Your task to perform on an android device: Search for "razer blackwidow" on bestbuy.com, select the first entry, and add it to the cart. Image 0: 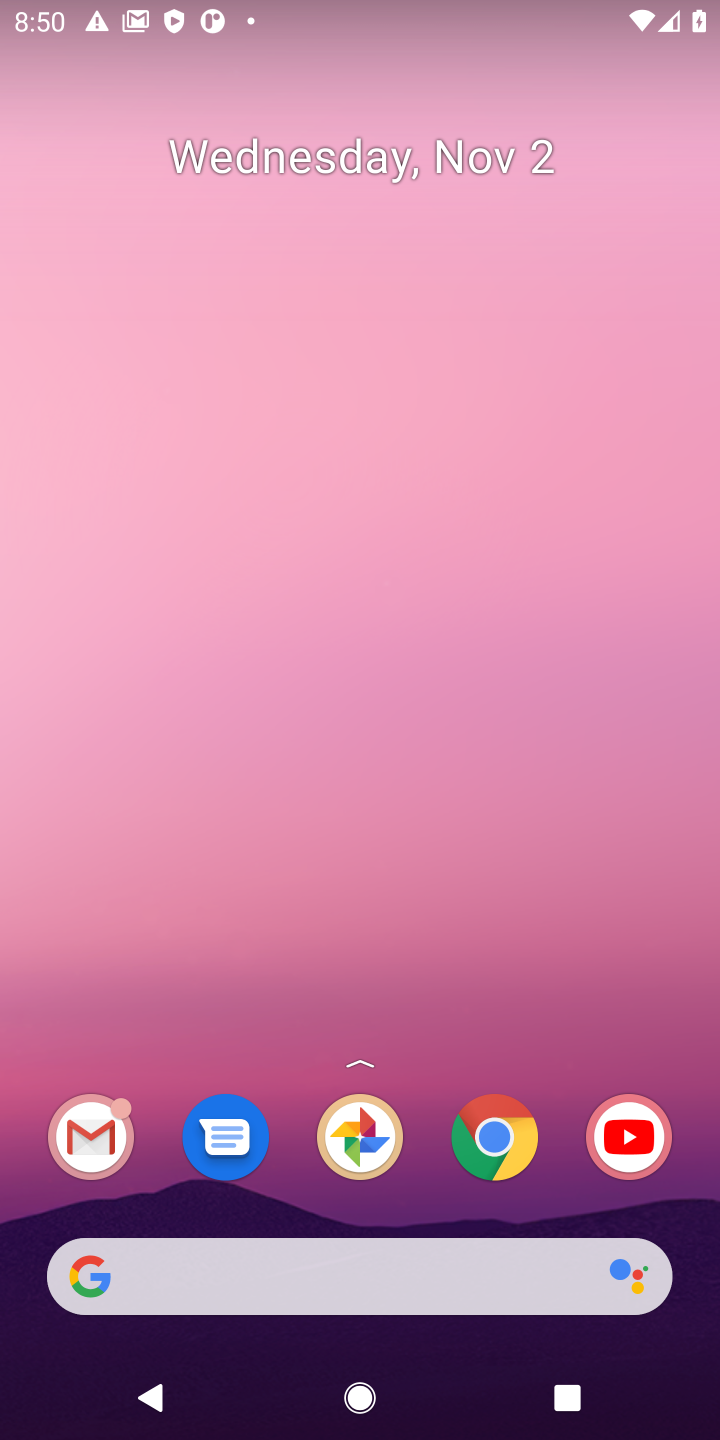
Step 0: click (499, 1140)
Your task to perform on an android device: Search for "razer blackwidow" on bestbuy.com, select the first entry, and add it to the cart. Image 1: 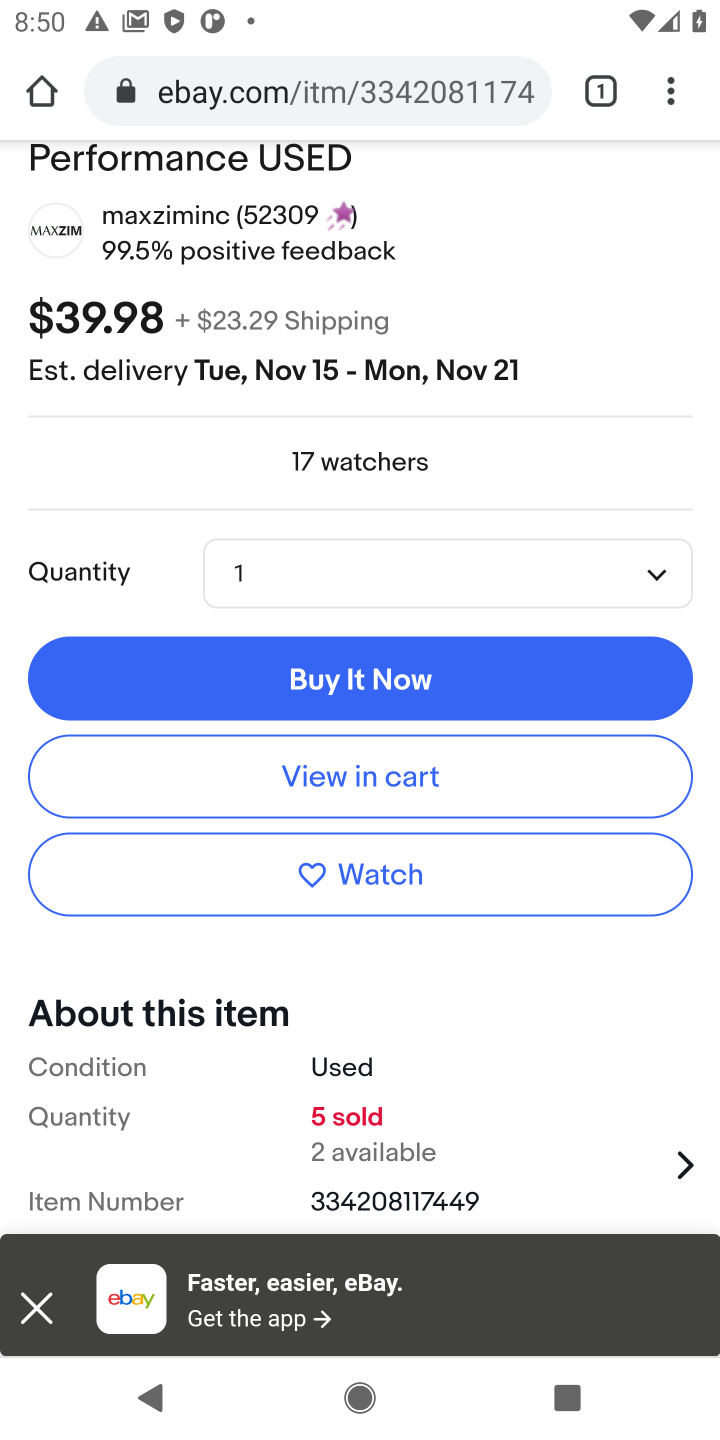
Step 1: click (373, 60)
Your task to perform on an android device: Search for "razer blackwidow" on bestbuy.com, select the first entry, and add it to the cart. Image 2: 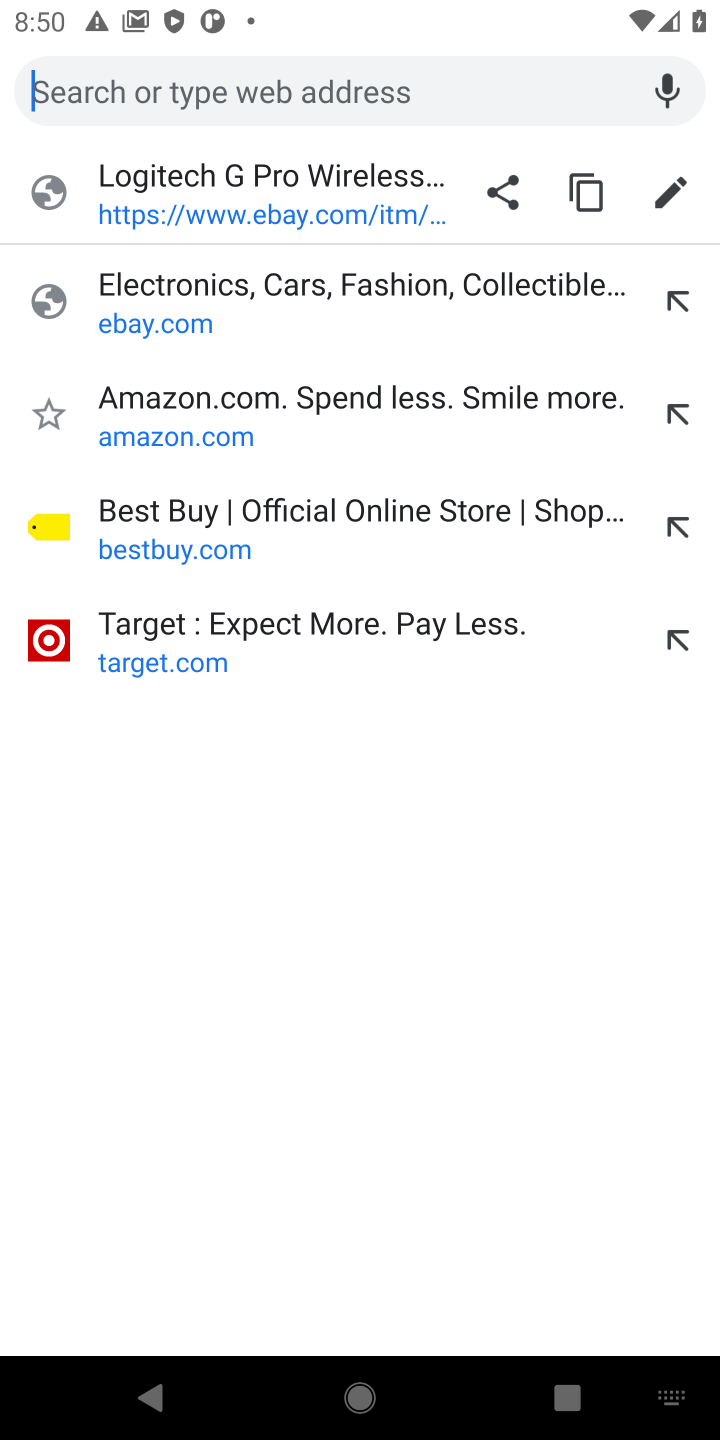
Step 2: type "bestbuy.com"
Your task to perform on an android device: Search for "razer blackwidow" on bestbuy.com, select the first entry, and add it to the cart. Image 3: 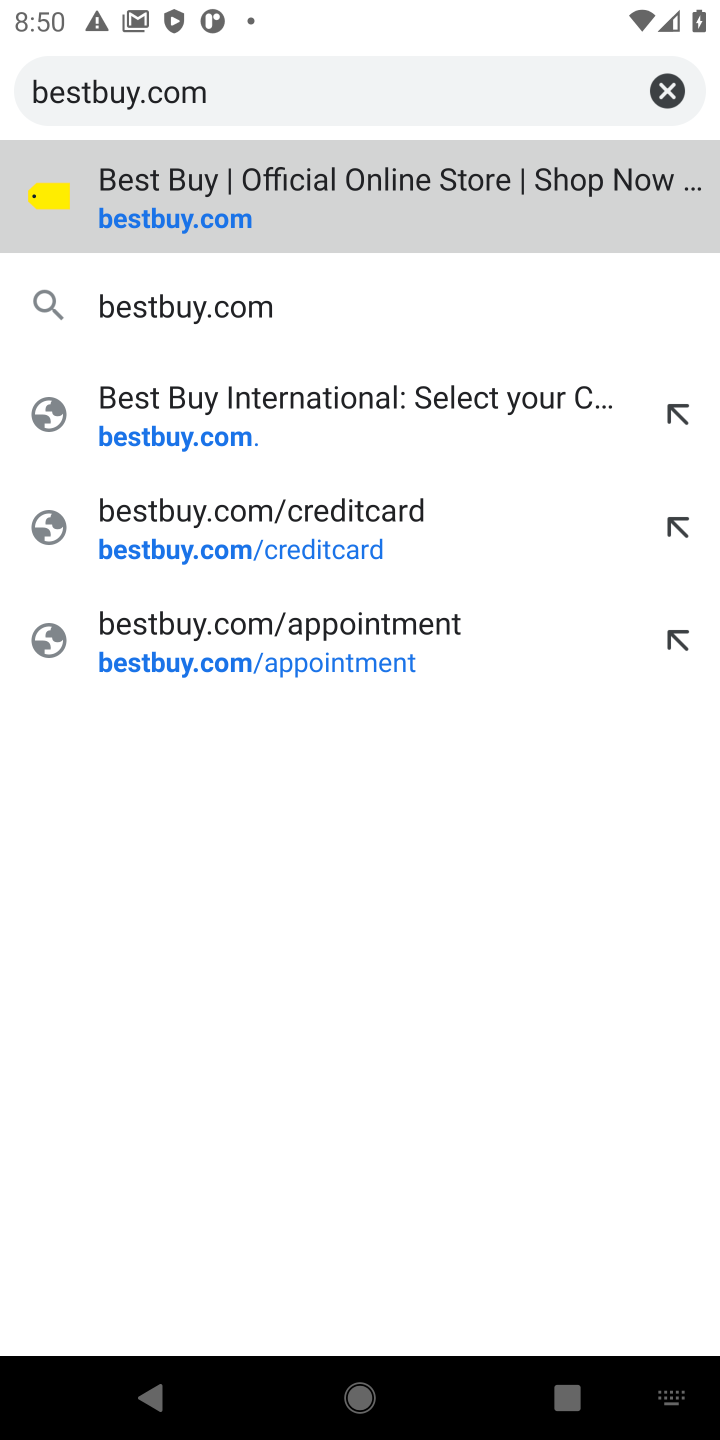
Step 3: click (157, 179)
Your task to perform on an android device: Search for "razer blackwidow" on bestbuy.com, select the first entry, and add it to the cart. Image 4: 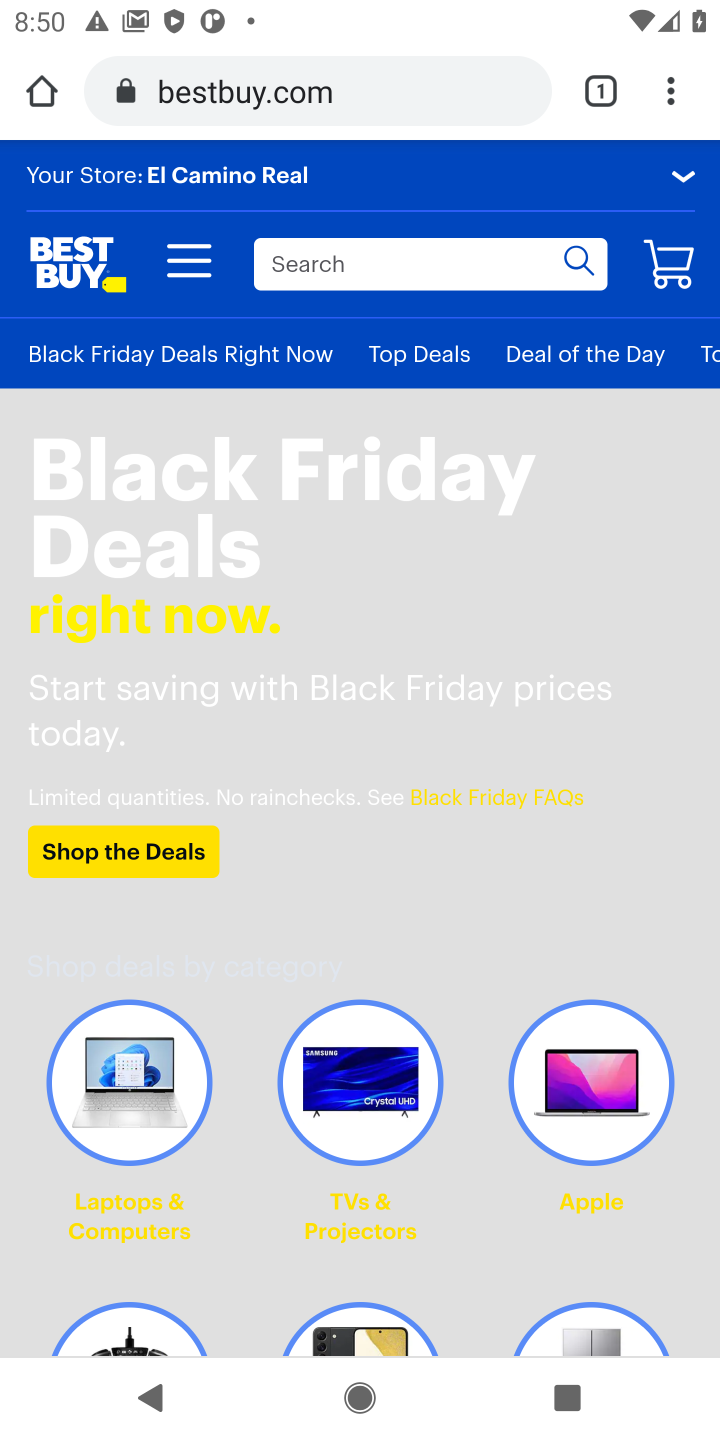
Step 4: click (372, 264)
Your task to perform on an android device: Search for "razer blackwidow" on bestbuy.com, select the first entry, and add it to the cart. Image 5: 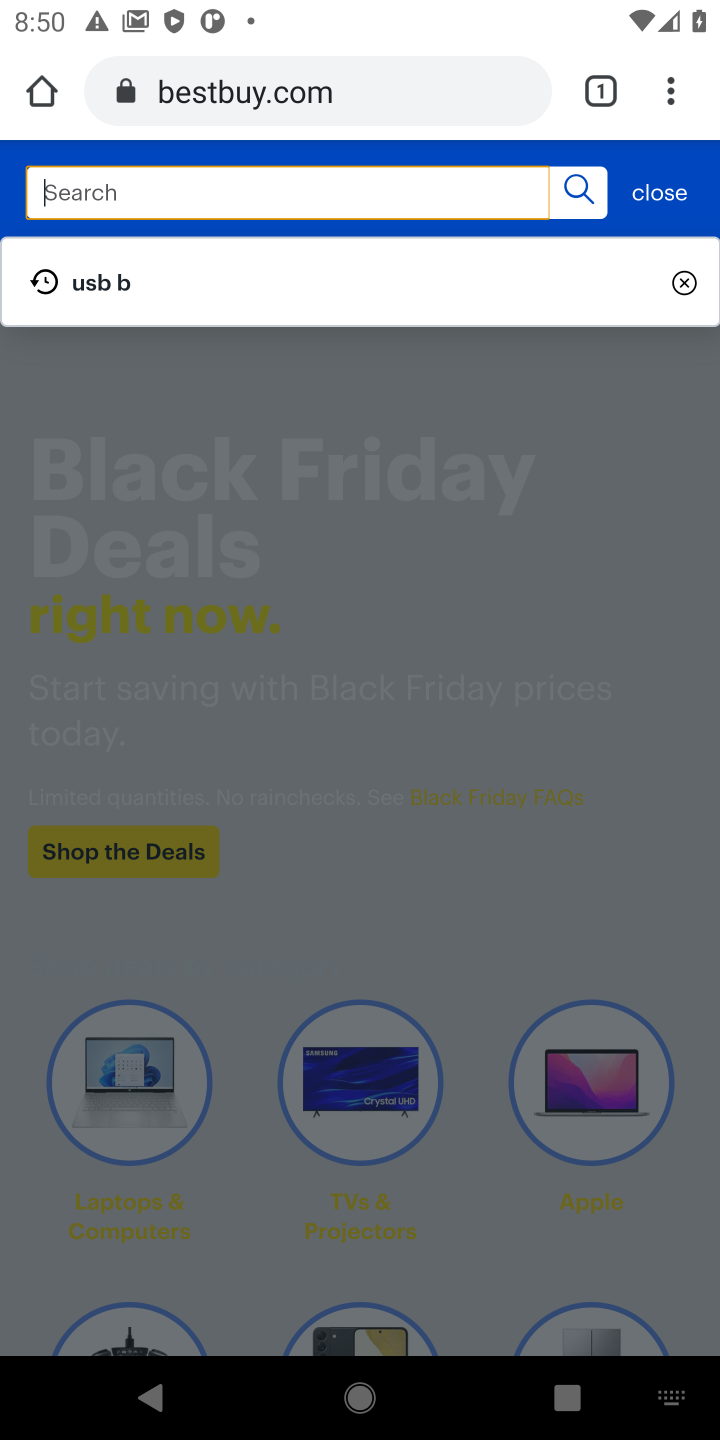
Step 5: type "razer blackwidow"
Your task to perform on an android device: Search for "razer blackwidow" on bestbuy.com, select the first entry, and add it to the cart. Image 6: 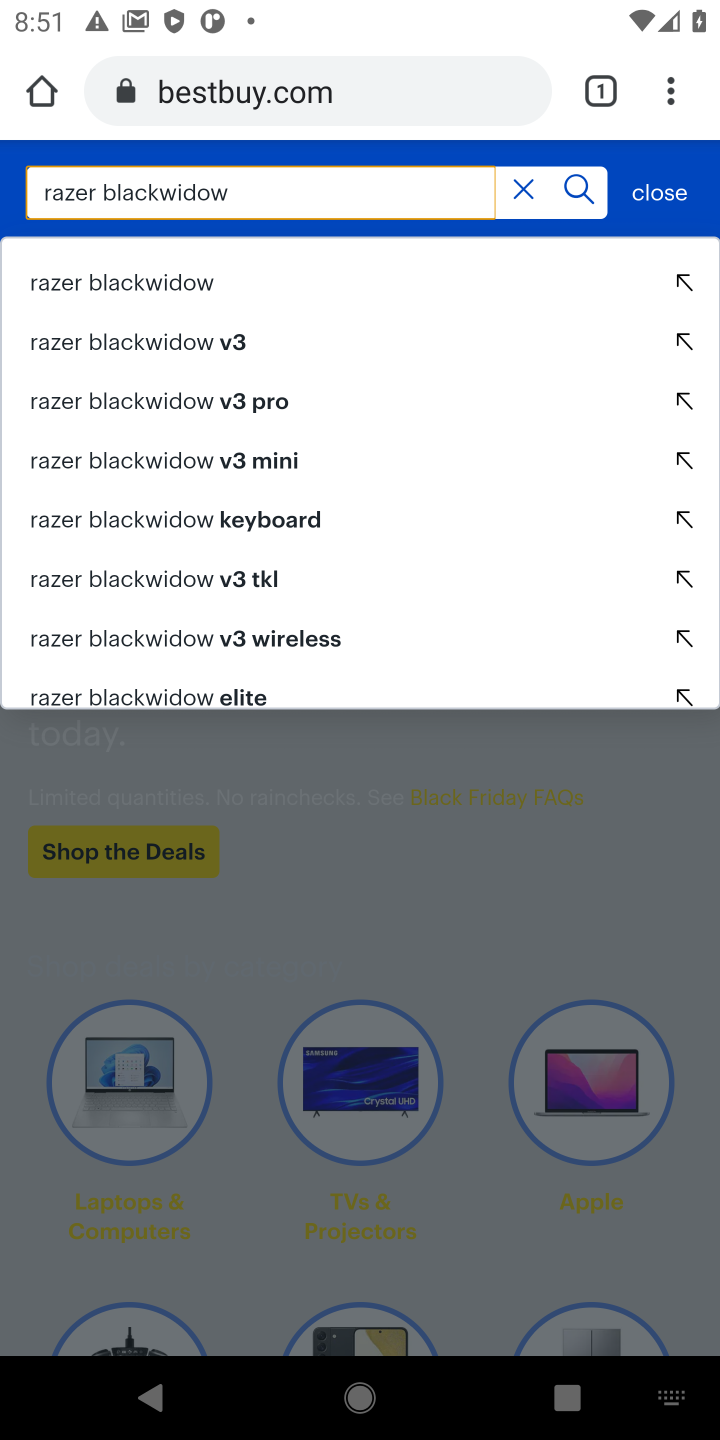
Step 6: click (165, 280)
Your task to perform on an android device: Search for "razer blackwidow" on bestbuy.com, select the first entry, and add it to the cart. Image 7: 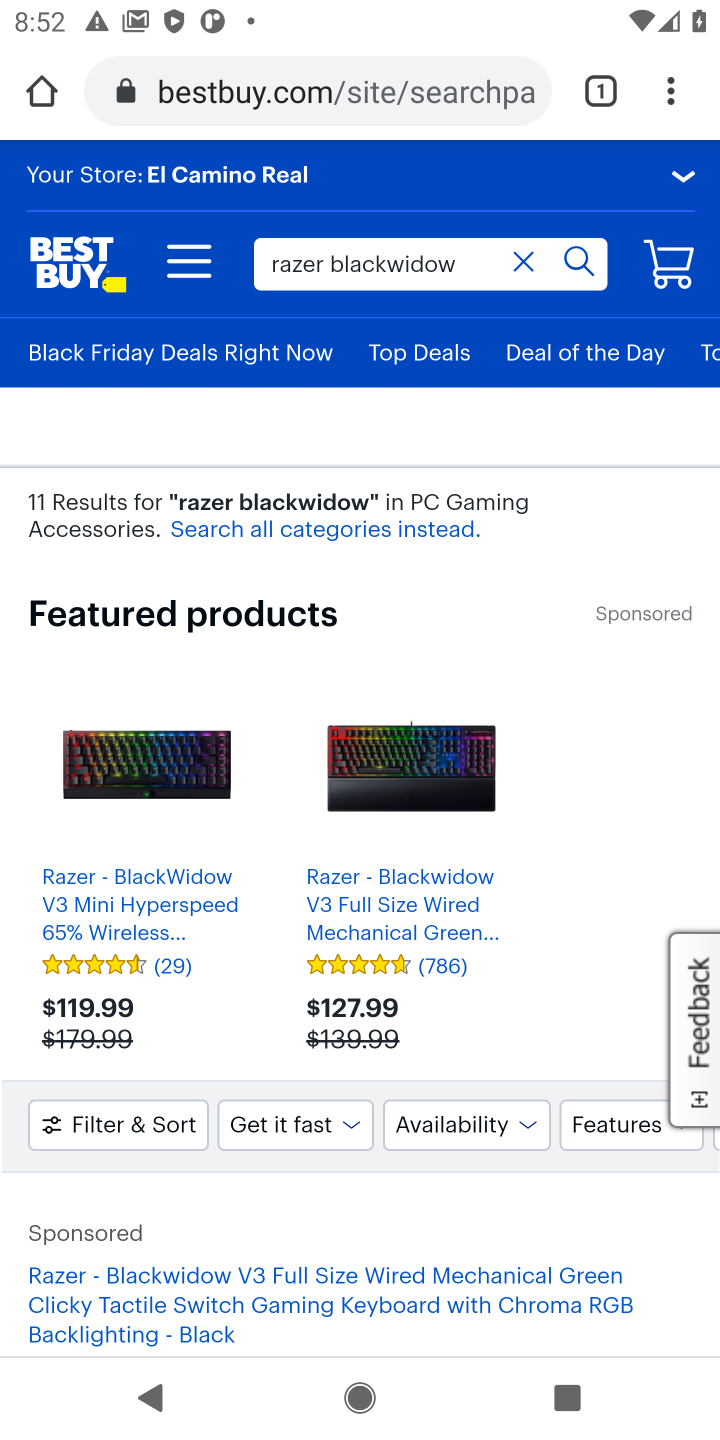
Step 7: drag from (463, 1203) to (394, 237)
Your task to perform on an android device: Search for "razer blackwidow" on bestbuy.com, select the first entry, and add it to the cart. Image 8: 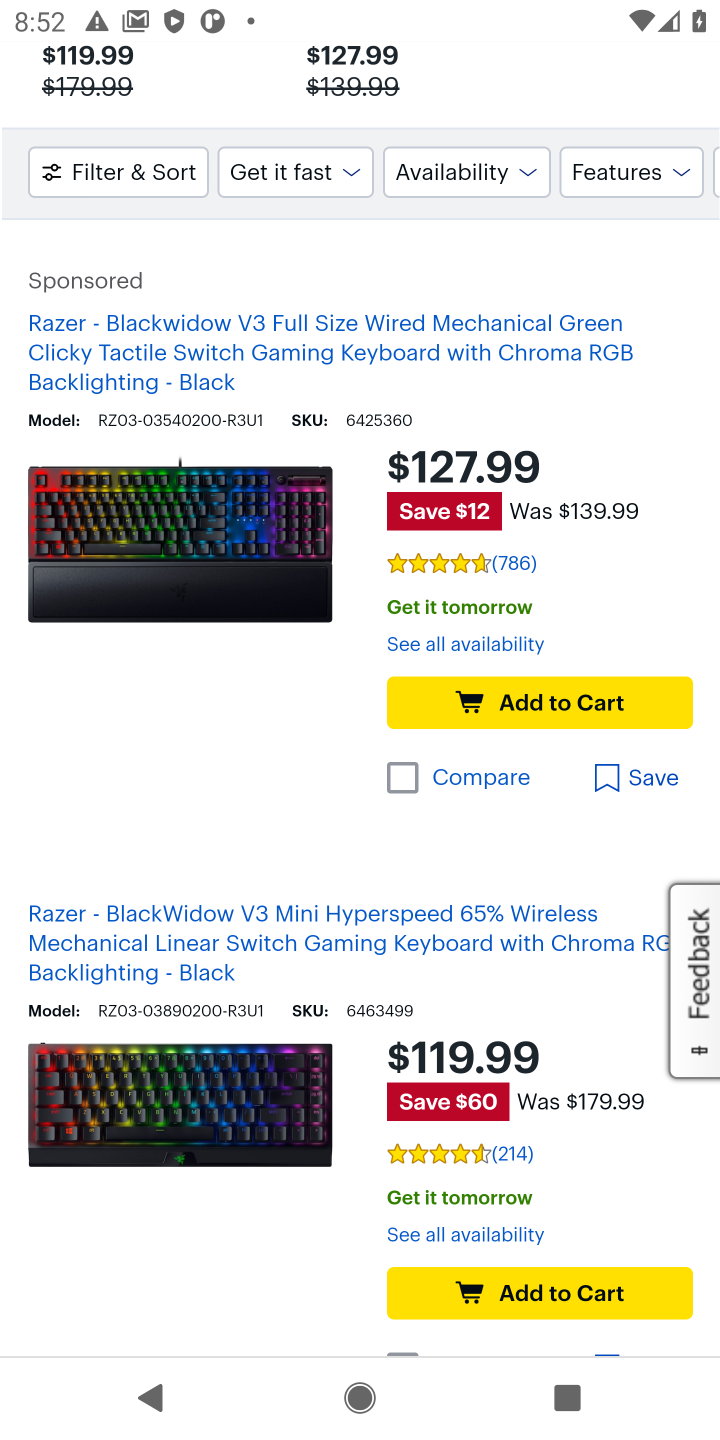
Step 8: click (534, 691)
Your task to perform on an android device: Search for "razer blackwidow" on bestbuy.com, select the first entry, and add it to the cart. Image 9: 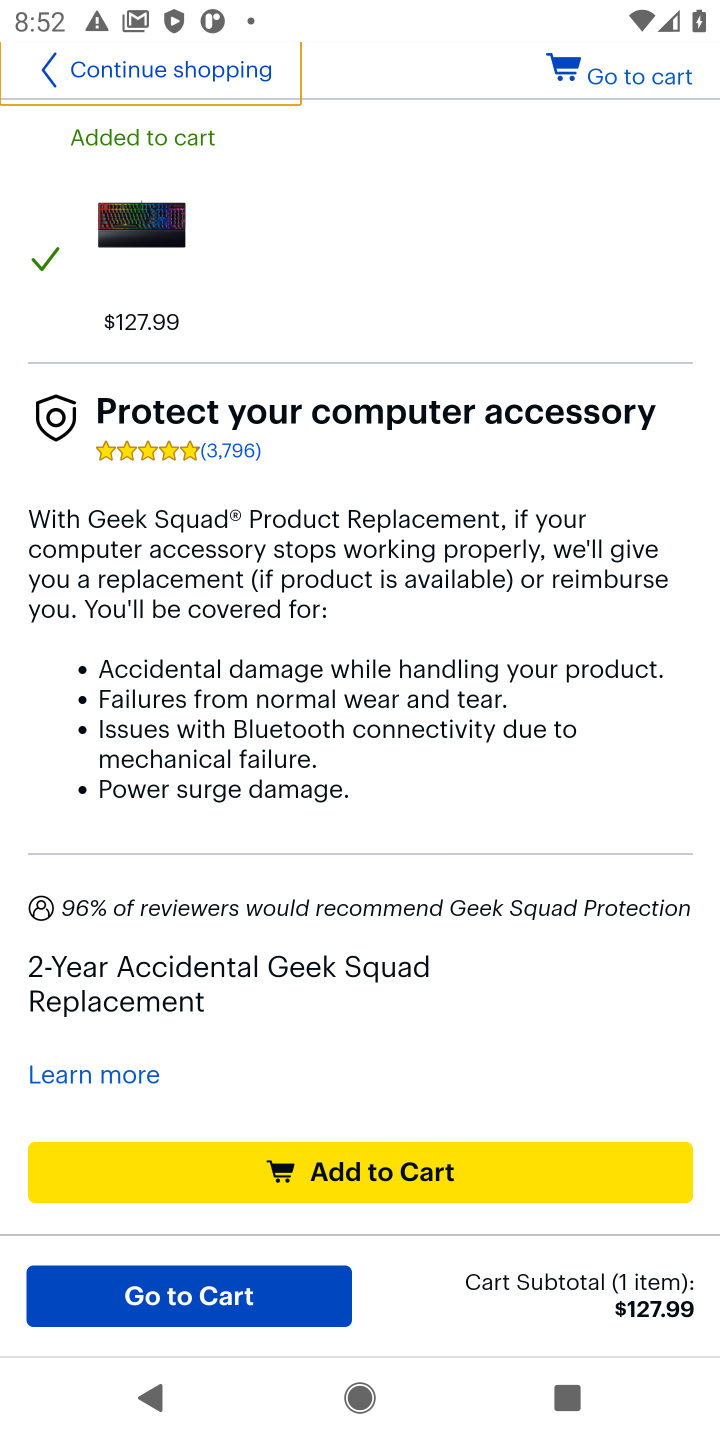
Step 9: task complete